Your task to perform on an android device: Go to Maps Image 0: 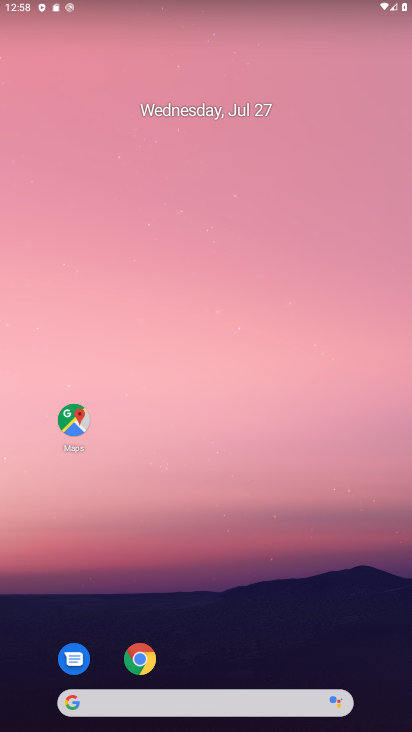
Step 0: drag from (343, 603) to (135, 6)
Your task to perform on an android device: Go to Maps Image 1: 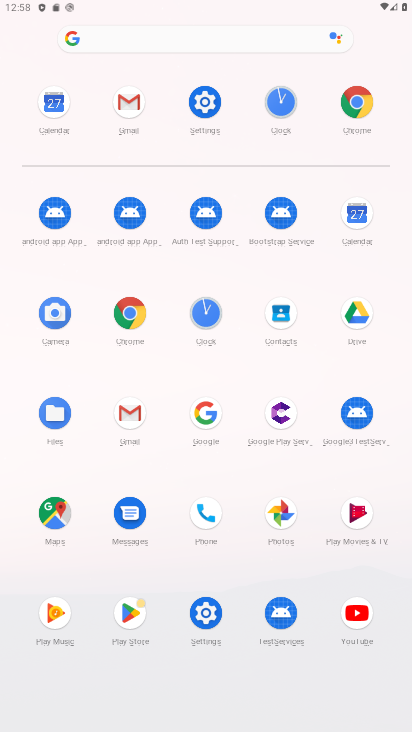
Step 1: click (56, 513)
Your task to perform on an android device: Go to Maps Image 2: 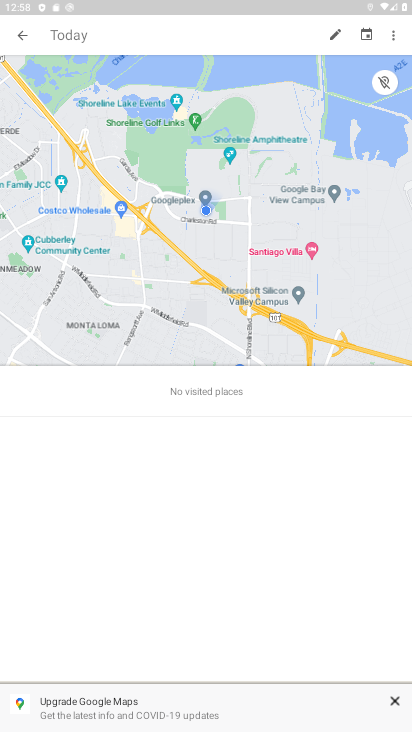
Step 2: task complete